Your task to perform on an android device: Open accessibility settings Image 0: 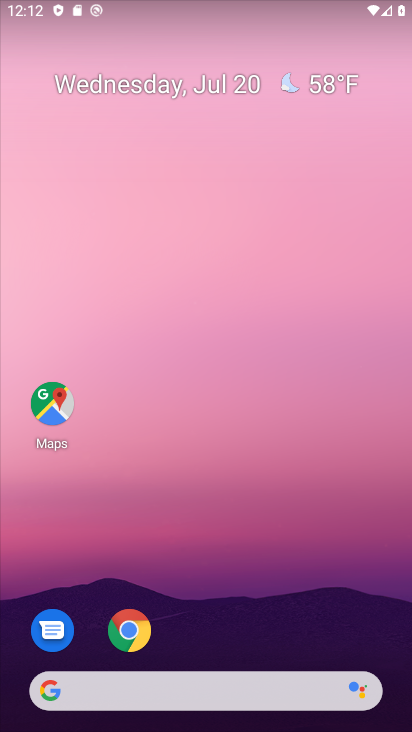
Step 0: drag from (203, 696) to (325, 127)
Your task to perform on an android device: Open accessibility settings Image 1: 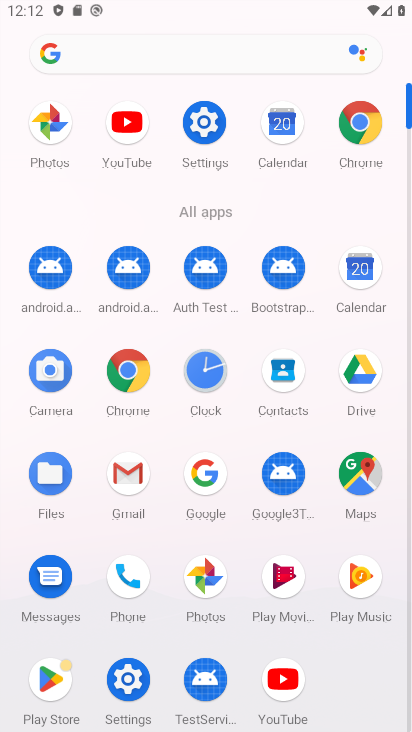
Step 1: click (192, 121)
Your task to perform on an android device: Open accessibility settings Image 2: 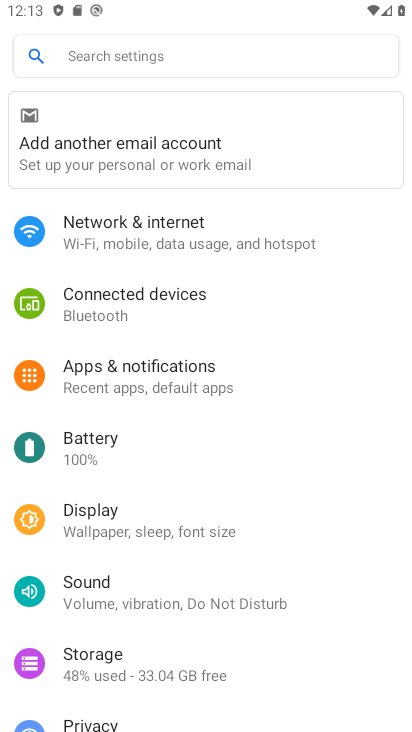
Step 2: drag from (202, 641) to (331, 146)
Your task to perform on an android device: Open accessibility settings Image 3: 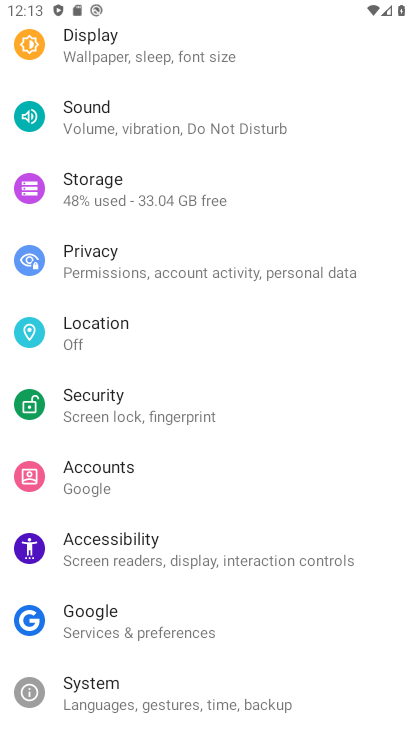
Step 3: click (127, 545)
Your task to perform on an android device: Open accessibility settings Image 4: 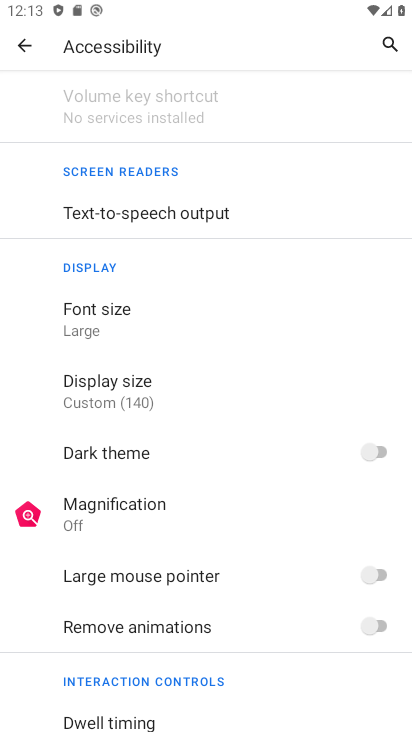
Step 4: task complete